Your task to perform on an android device: Go to sound settings Image 0: 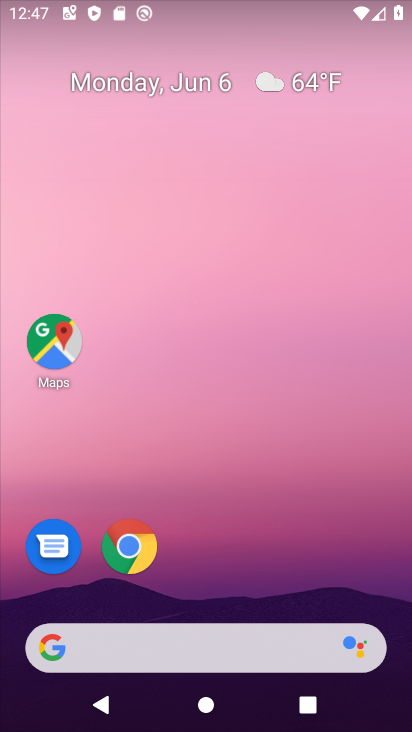
Step 0: drag from (220, 594) to (247, 240)
Your task to perform on an android device: Go to sound settings Image 1: 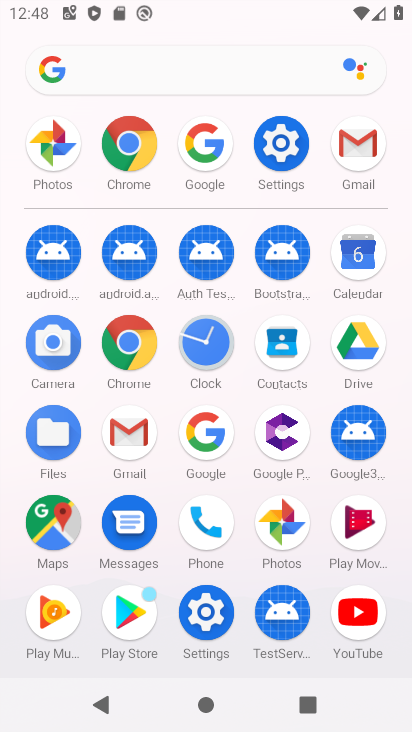
Step 1: click (278, 129)
Your task to perform on an android device: Go to sound settings Image 2: 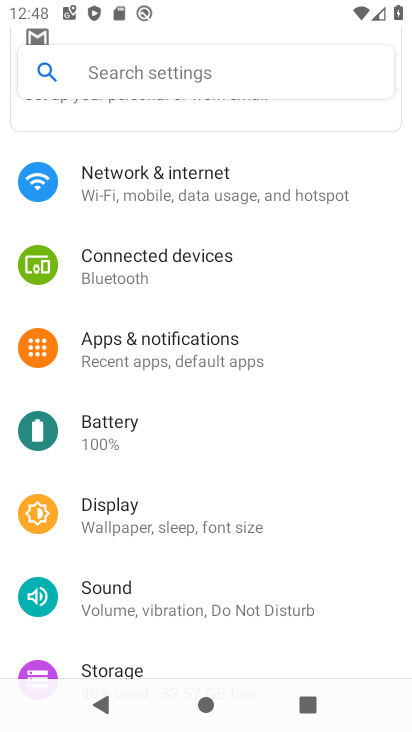
Step 2: click (123, 583)
Your task to perform on an android device: Go to sound settings Image 3: 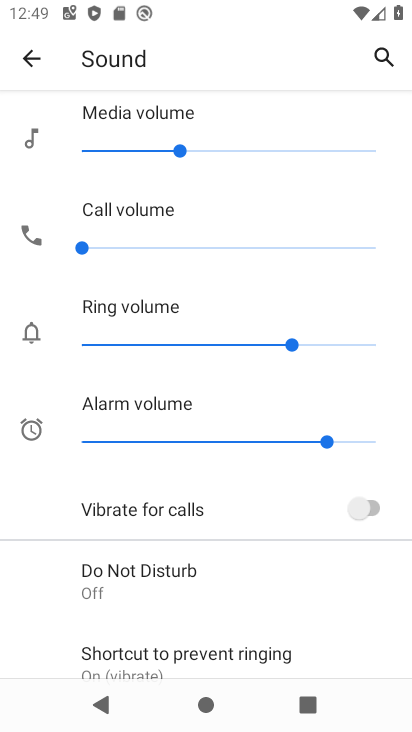
Step 3: task complete